Your task to perform on an android device: uninstall "Google Play Games" Image 0: 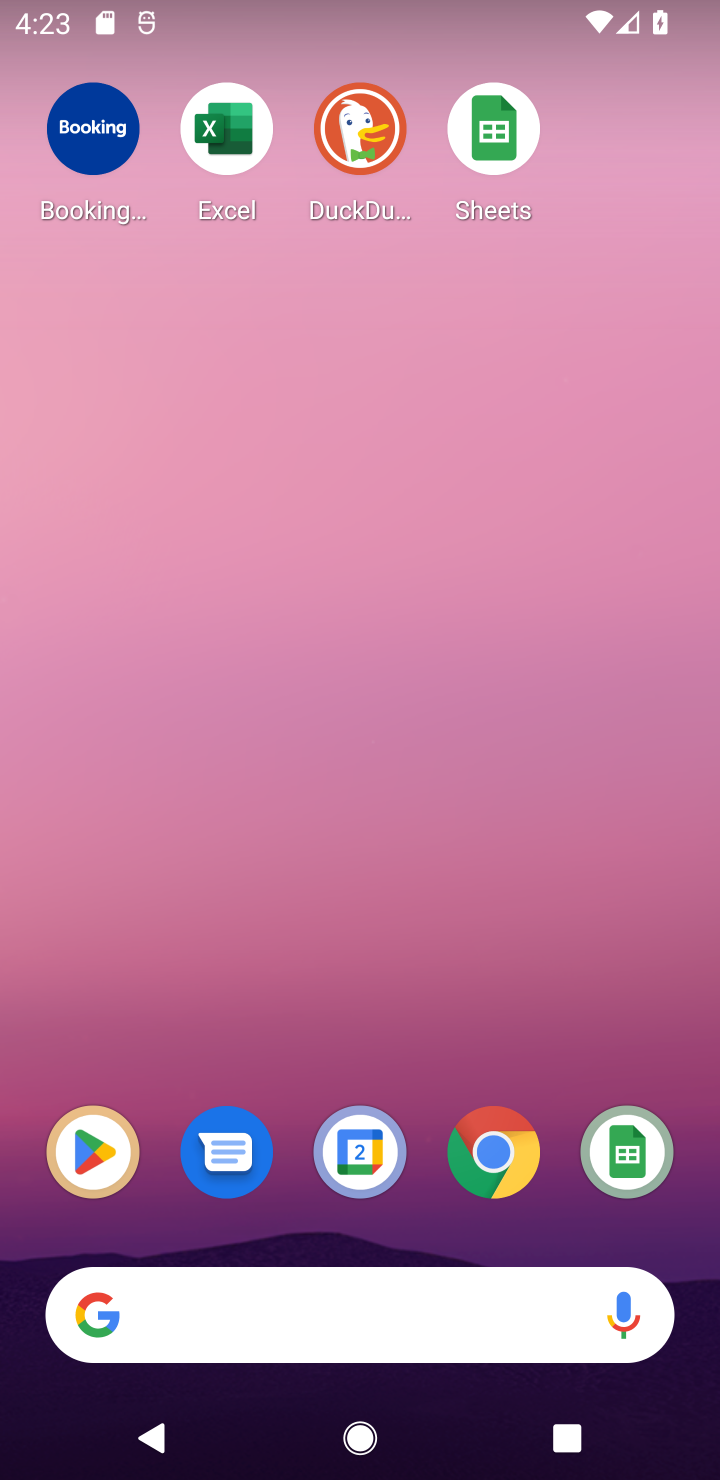
Step 0: drag from (393, 1244) to (339, 143)
Your task to perform on an android device: uninstall "Google Play Games" Image 1: 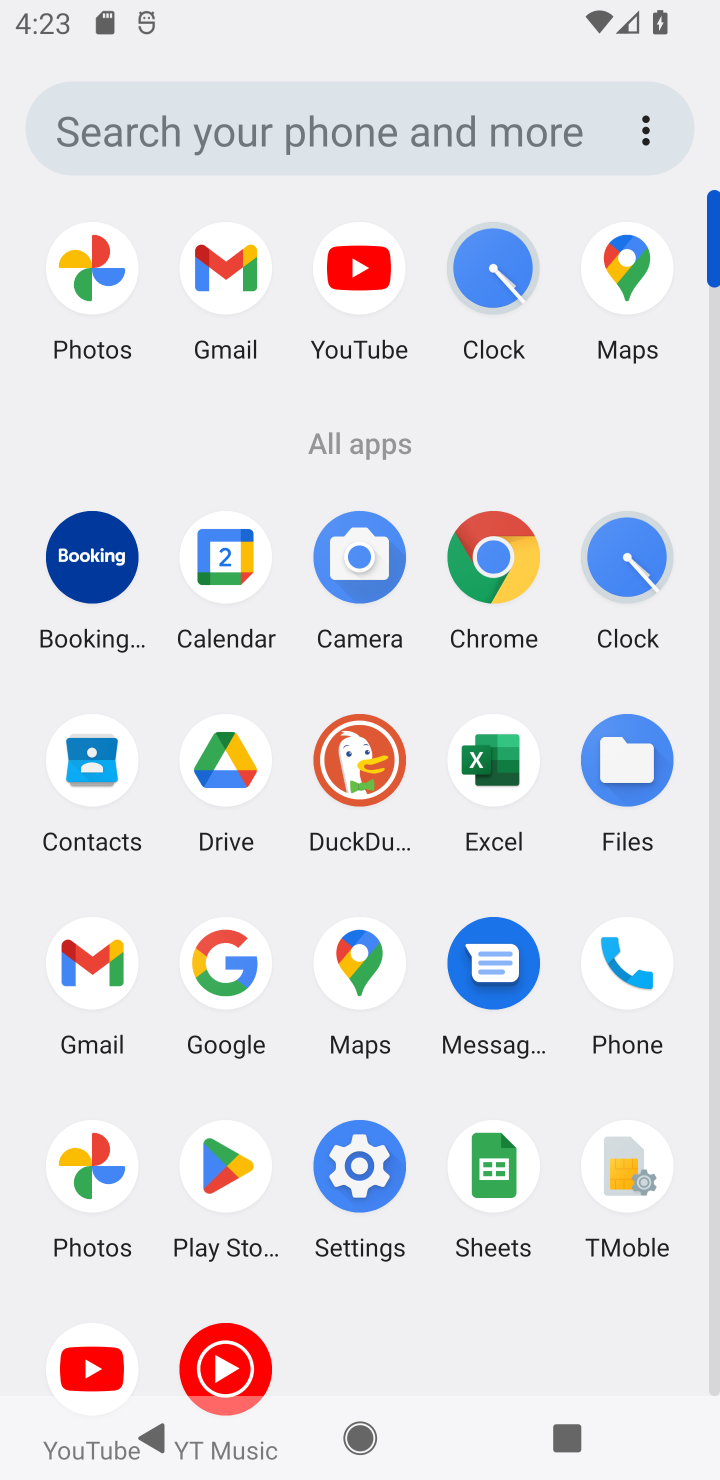
Step 1: click (230, 1175)
Your task to perform on an android device: uninstall "Google Play Games" Image 2: 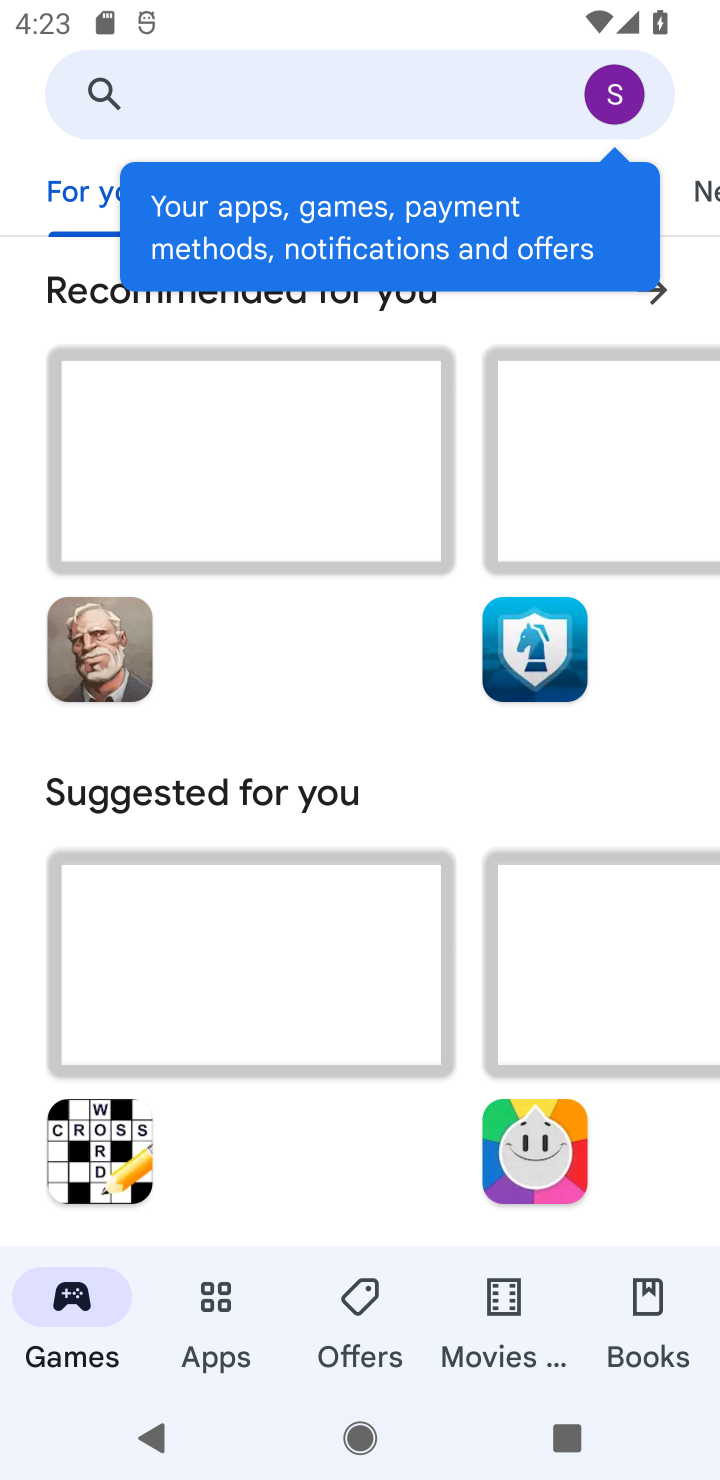
Step 2: click (258, 92)
Your task to perform on an android device: uninstall "Google Play Games" Image 3: 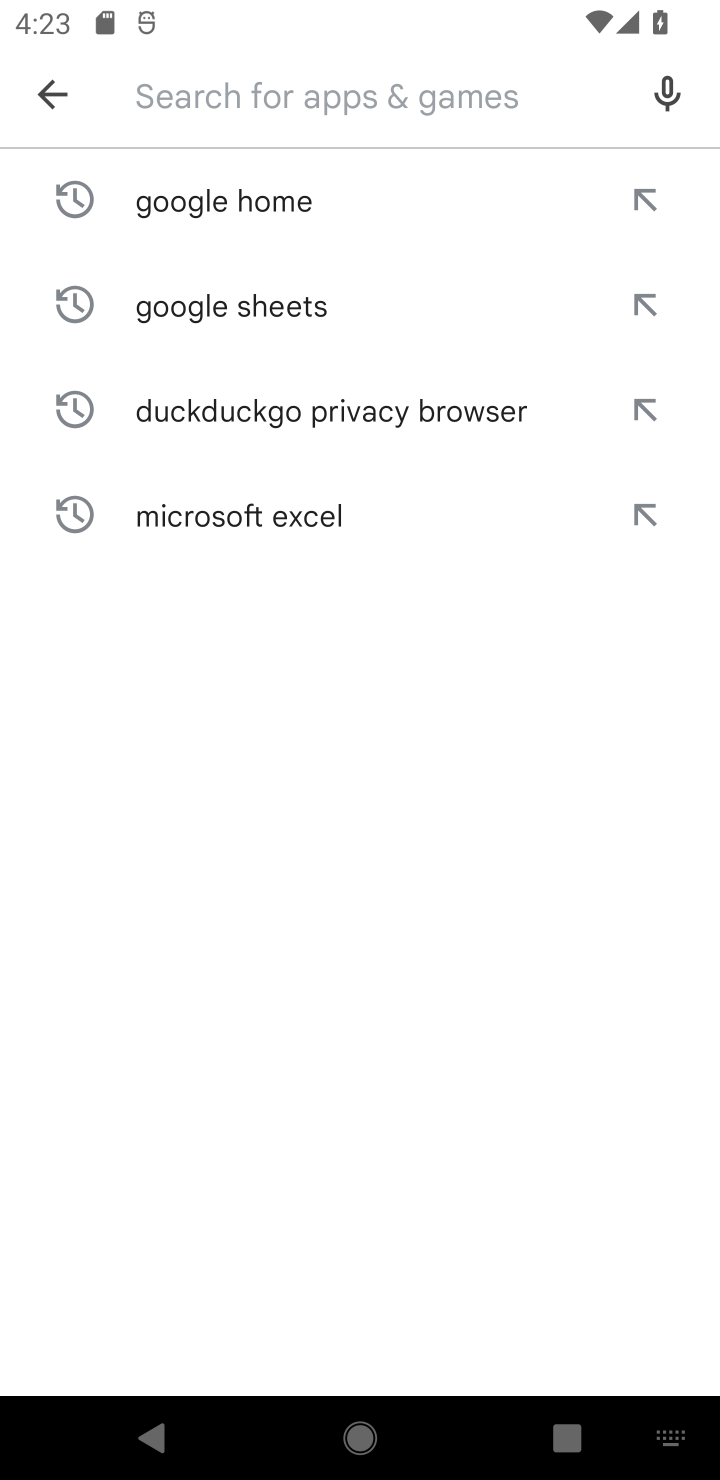
Step 3: type "Google Play Games"
Your task to perform on an android device: uninstall "Google Play Games" Image 4: 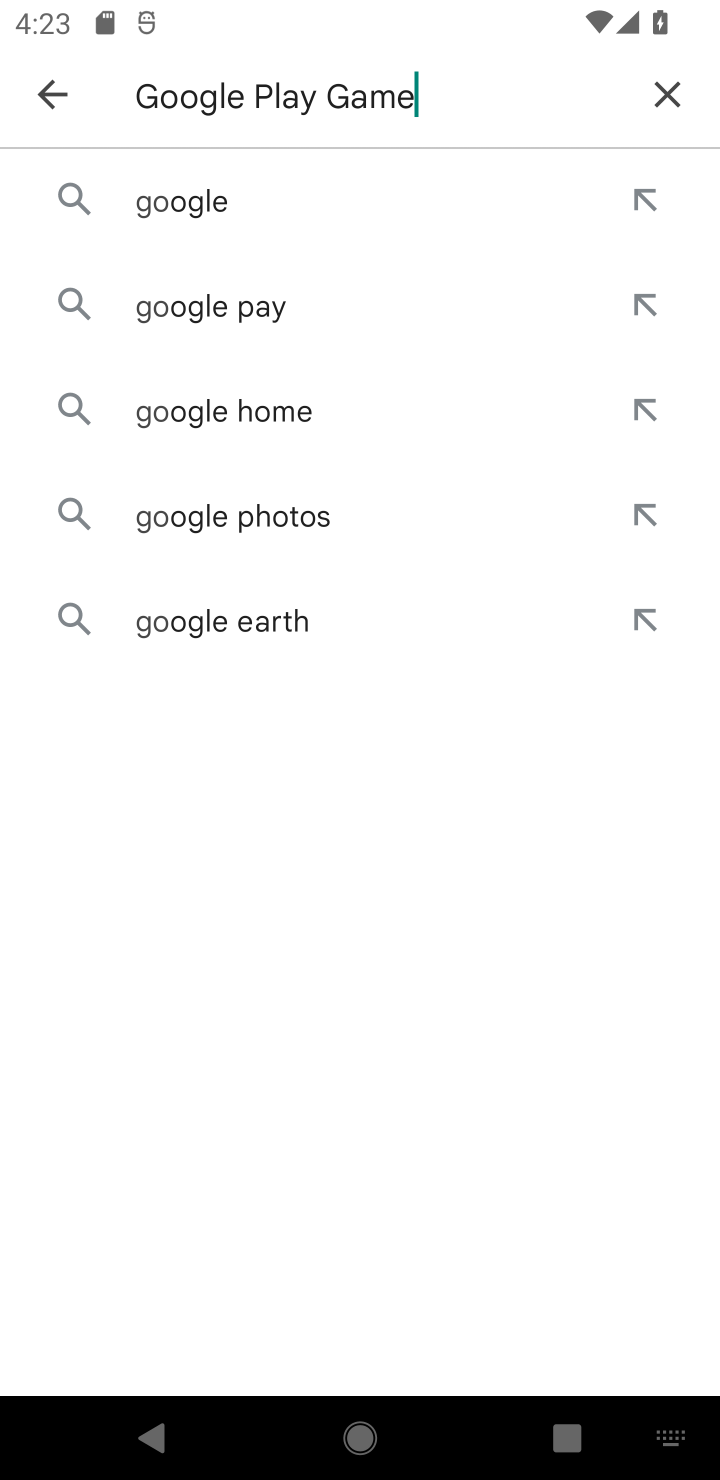
Step 4: type ""
Your task to perform on an android device: uninstall "Google Play Games" Image 5: 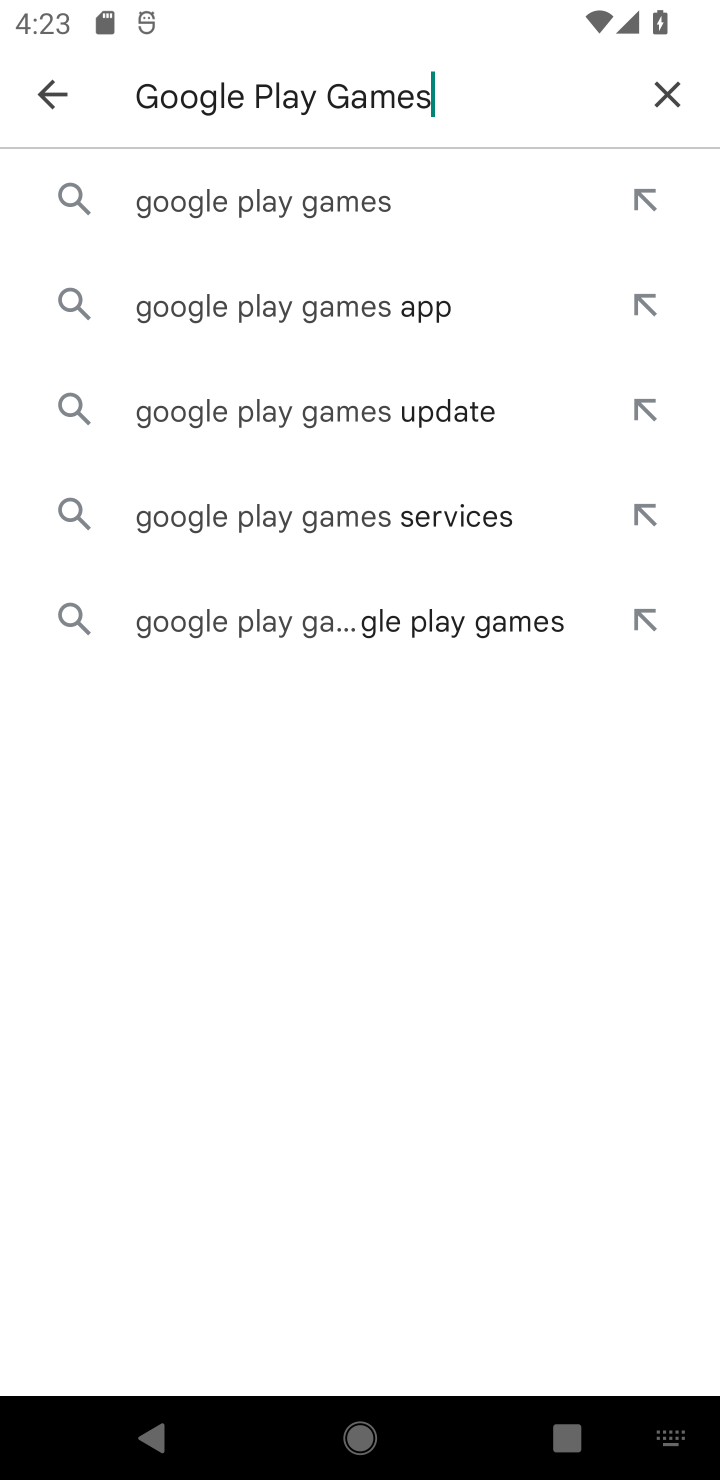
Step 5: click (266, 173)
Your task to perform on an android device: uninstall "Google Play Games" Image 6: 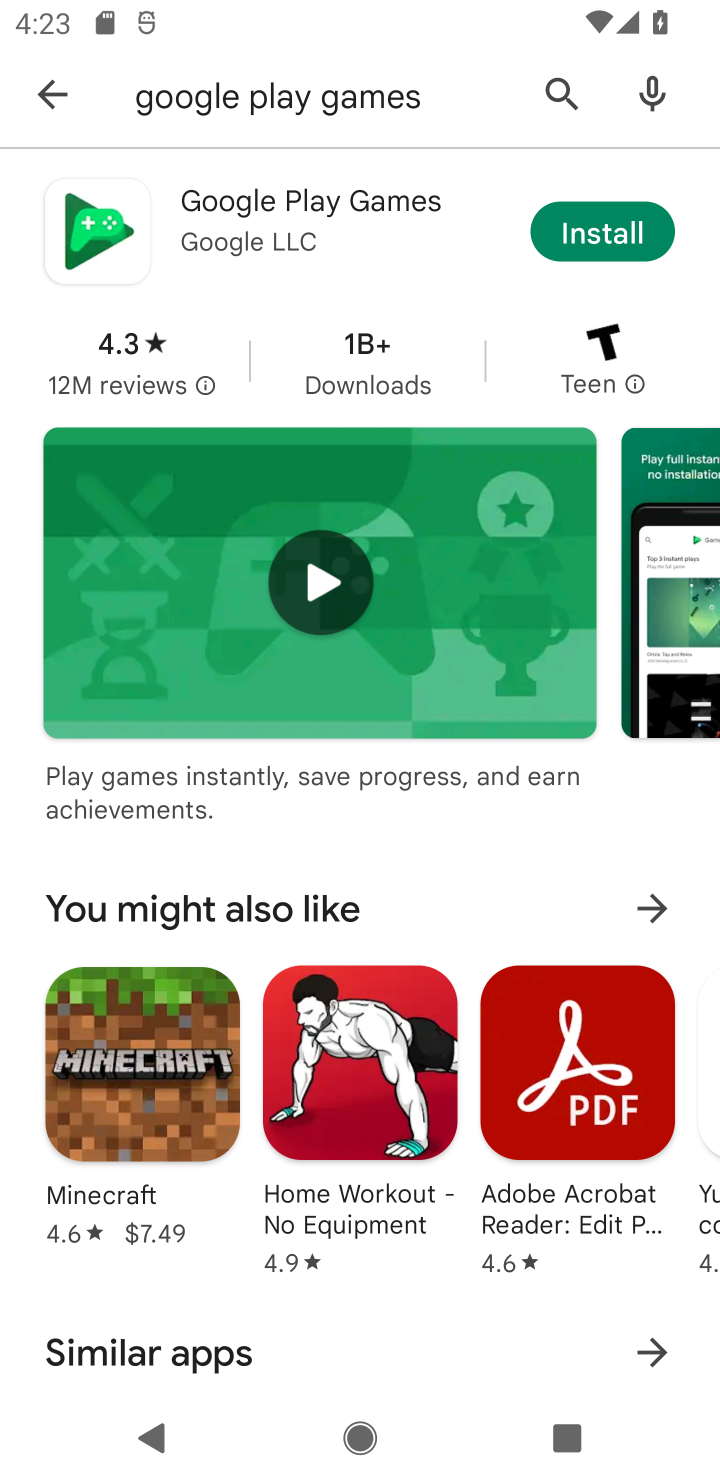
Step 6: task complete